Your task to perform on an android device: check google app version Image 0: 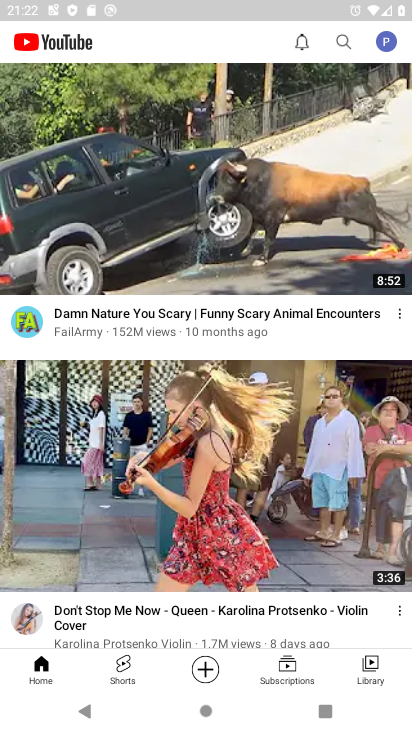
Step 0: press home button
Your task to perform on an android device: check google app version Image 1: 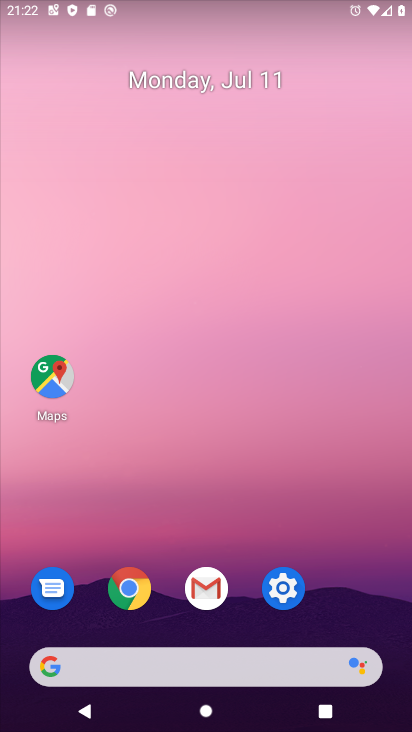
Step 1: click (142, 592)
Your task to perform on an android device: check google app version Image 2: 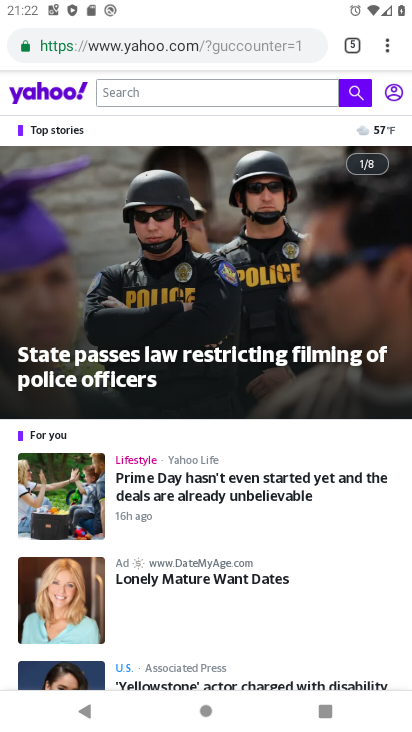
Step 2: click (385, 48)
Your task to perform on an android device: check google app version Image 3: 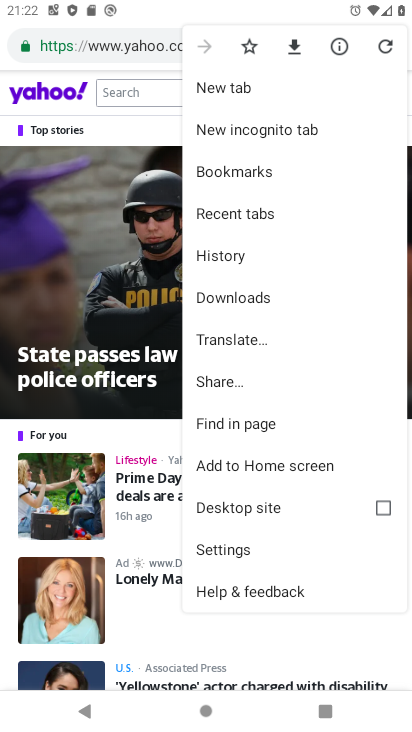
Step 3: click (216, 548)
Your task to perform on an android device: check google app version Image 4: 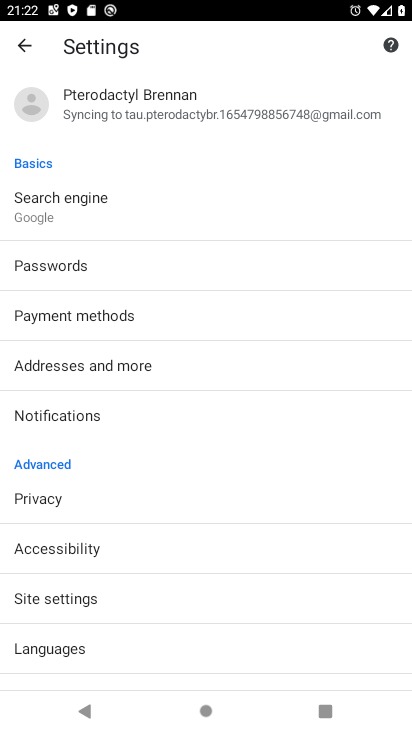
Step 4: drag from (182, 568) to (161, 320)
Your task to perform on an android device: check google app version Image 5: 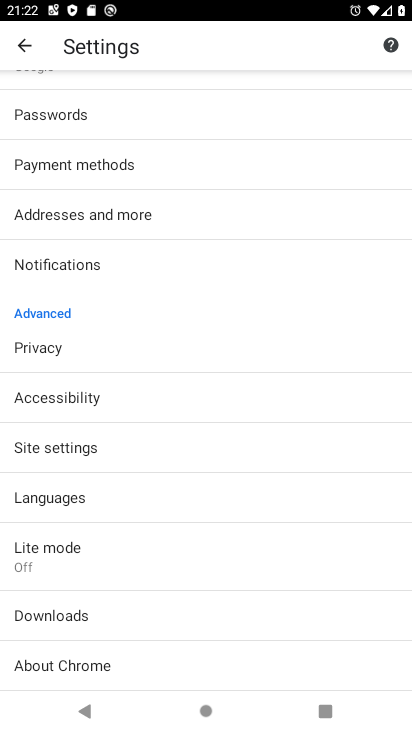
Step 5: drag from (203, 482) to (290, 154)
Your task to perform on an android device: check google app version Image 6: 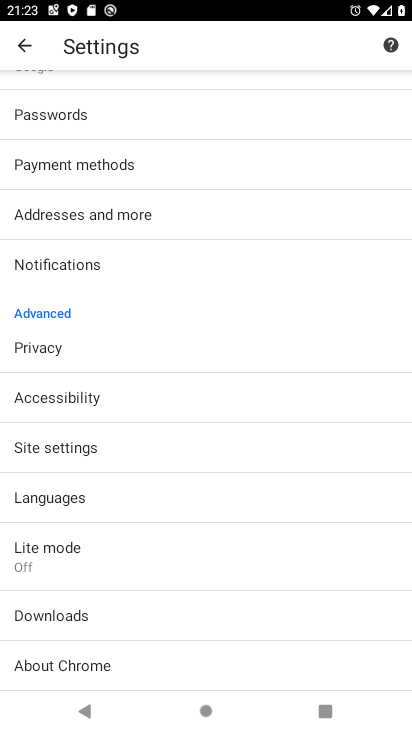
Step 6: click (94, 671)
Your task to perform on an android device: check google app version Image 7: 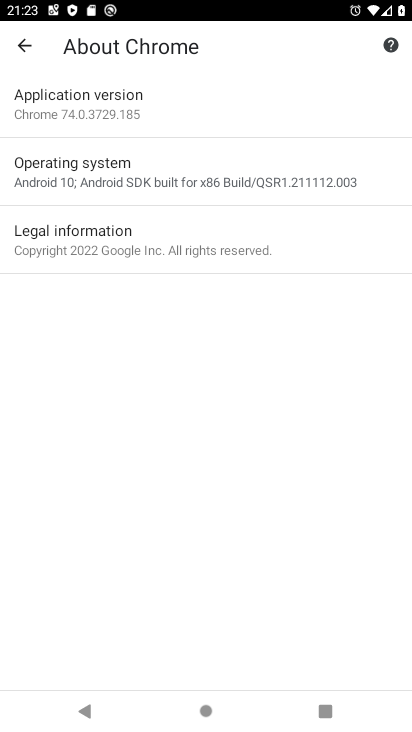
Step 7: click (74, 122)
Your task to perform on an android device: check google app version Image 8: 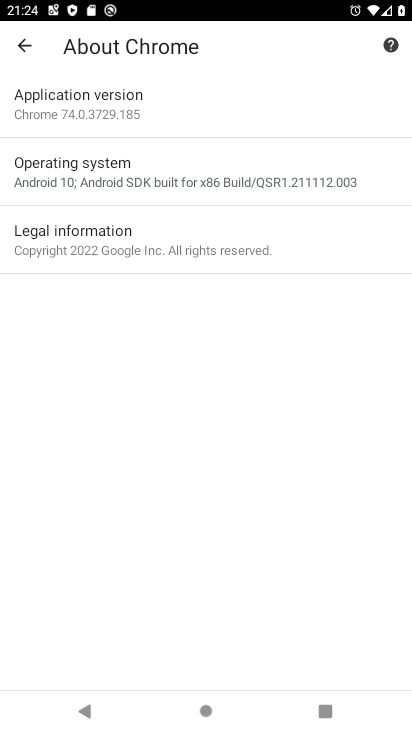
Step 8: task complete